Your task to perform on an android device: clear history in the chrome app Image 0: 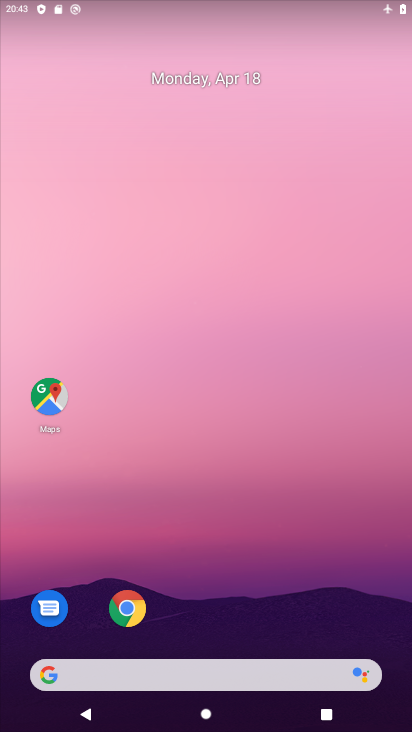
Step 0: click (127, 604)
Your task to perform on an android device: clear history in the chrome app Image 1: 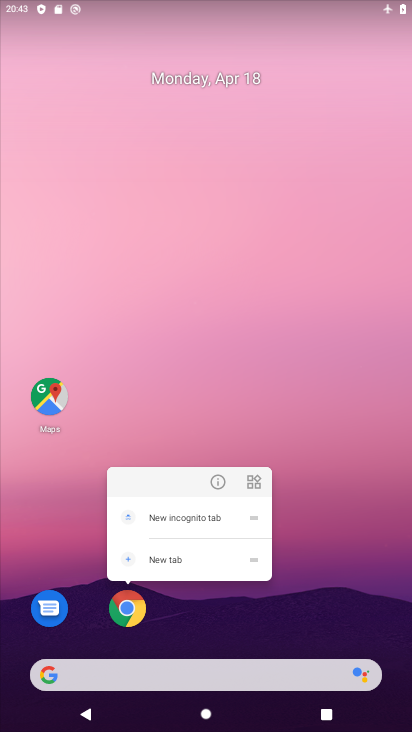
Step 1: click (127, 610)
Your task to perform on an android device: clear history in the chrome app Image 2: 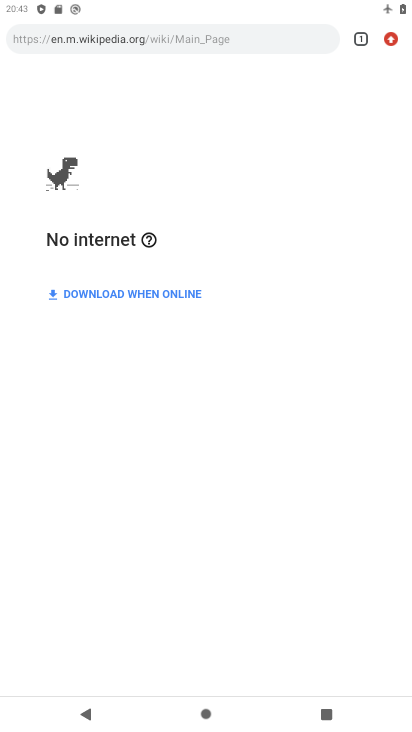
Step 2: click (391, 39)
Your task to perform on an android device: clear history in the chrome app Image 3: 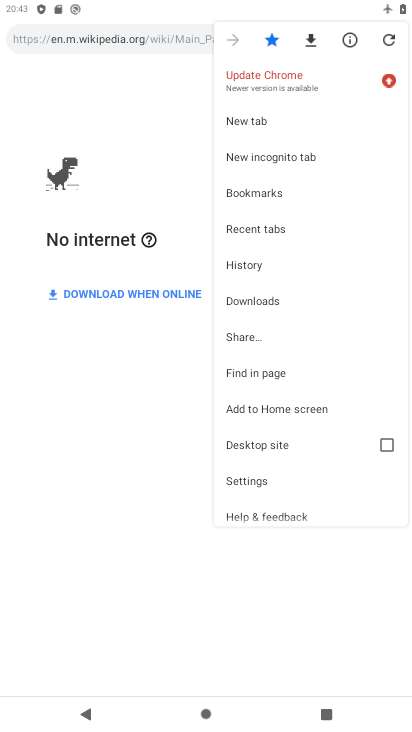
Step 3: click (263, 269)
Your task to perform on an android device: clear history in the chrome app Image 4: 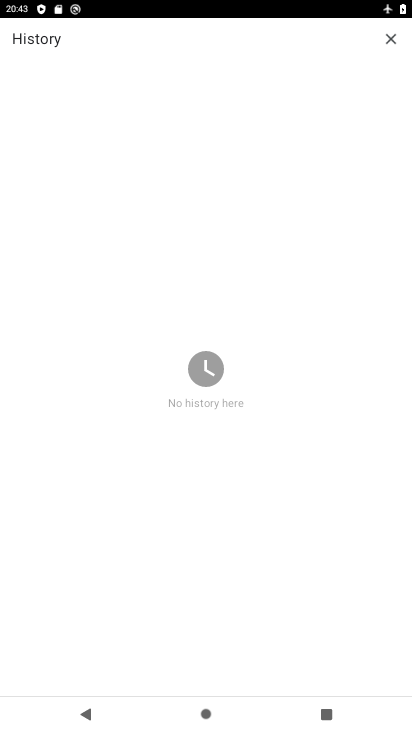
Step 4: task complete